Your task to perform on an android device: turn off smart reply in the gmail app Image 0: 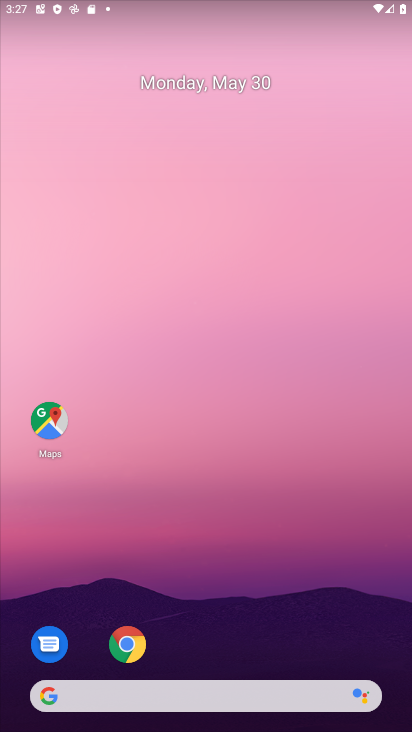
Step 0: task complete